Your task to perform on an android device: Open maps Image 0: 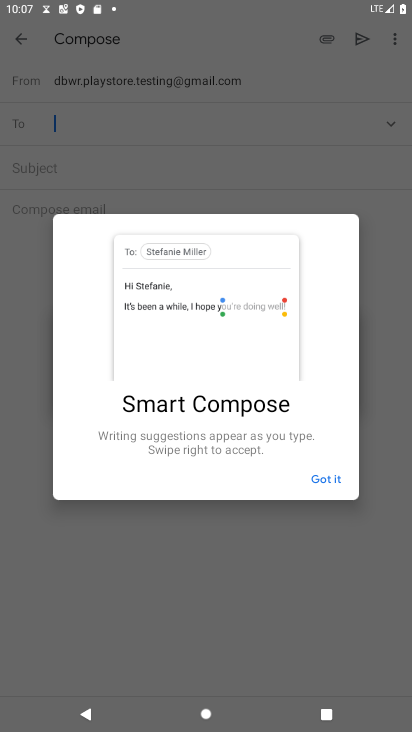
Step 0: press home button
Your task to perform on an android device: Open maps Image 1: 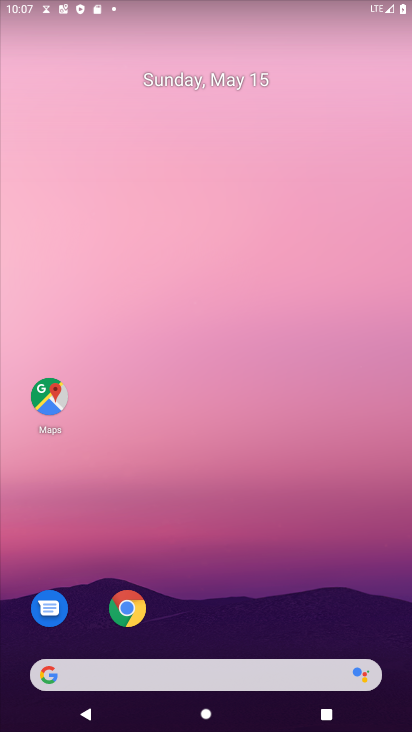
Step 1: drag from (321, 168) to (210, 5)
Your task to perform on an android device: Open maps Image 2: 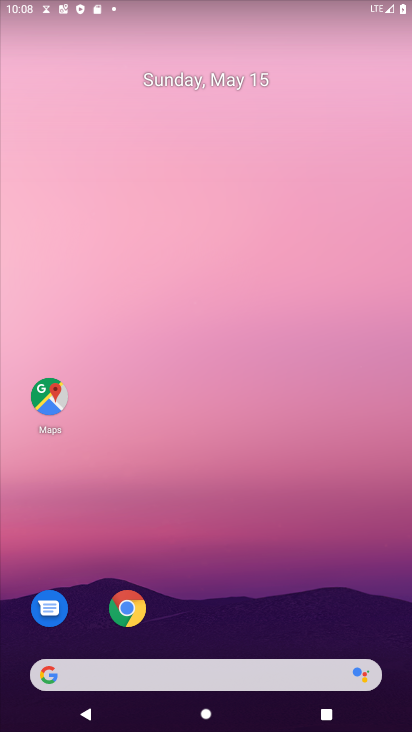
Step 2: drag from (313, 451) to (313, 67)
Your task to perform on an android device: Open maps Image 3: 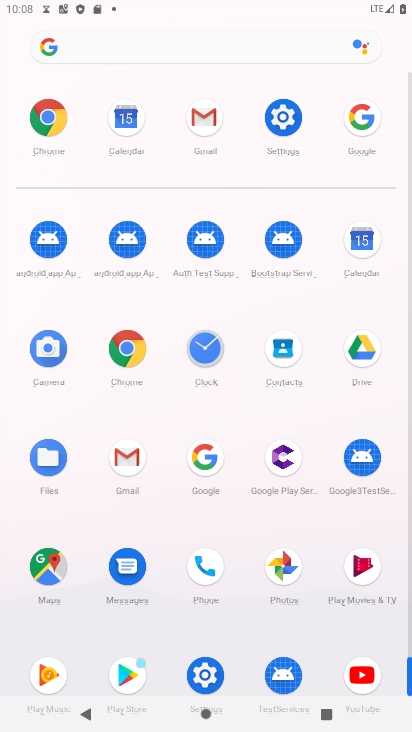
Step 3: click (40, 576)
Your task to perform on an android device: Open maps Image 4: 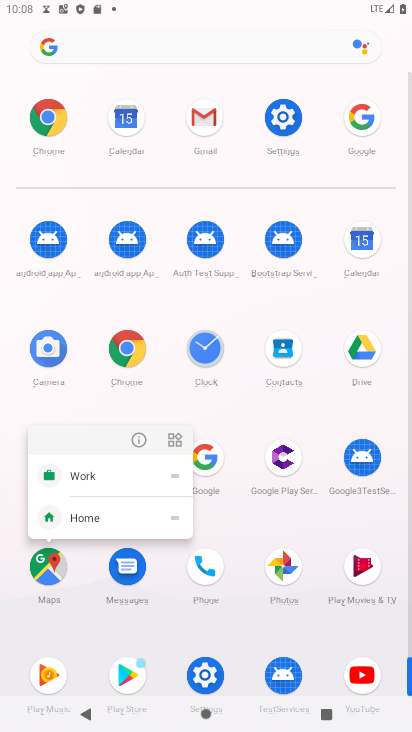
Step 4: click (38, 573)
Your task to perform on an android device: Open maps Image 5: 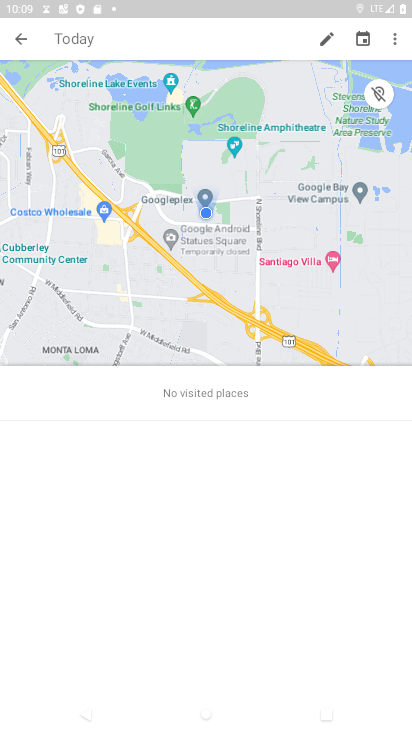
Step 5: task complete